Your task to perform on an android device: turn off location Image 0: 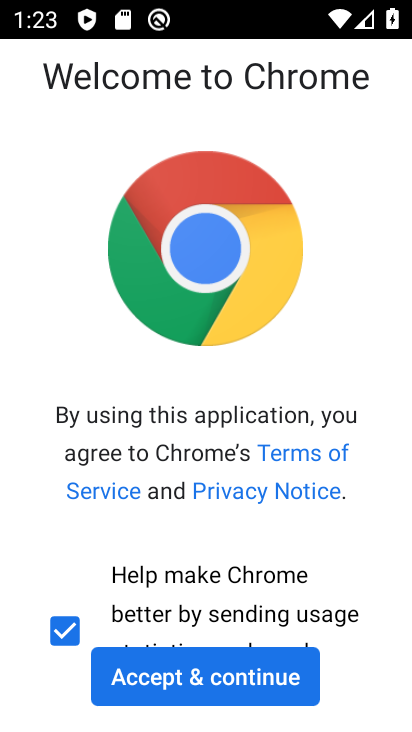
Step 0: press home button
Your task to perform on an android device: turn off location Image 1: 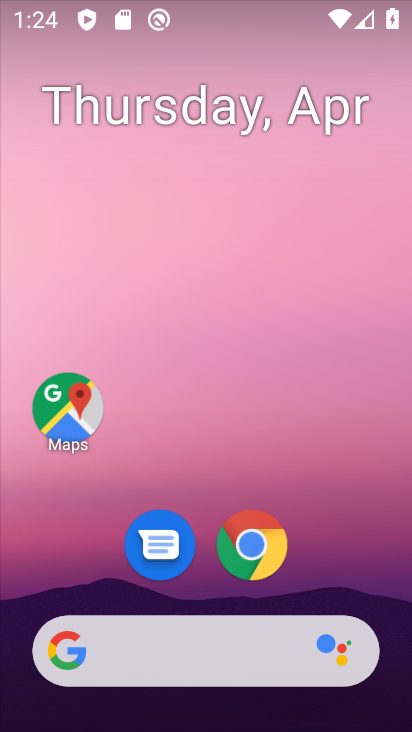
Step 1: drag from (342, 578) to (366, 1)
Your task to perform on an android device: turn off location Image 2: 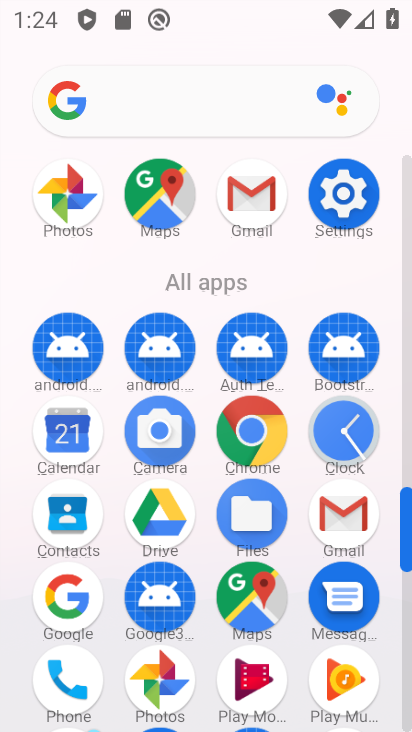
Step 2: click (340, 197)
Your task to perform on an android device: turn off location Image 3: 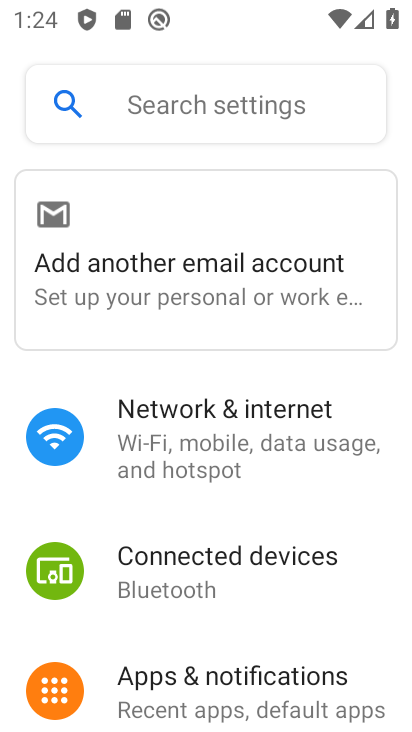
Step 3: drag from (348, 573) to (369, 62)
Your task to perform on an android device: turn off location Image 4: 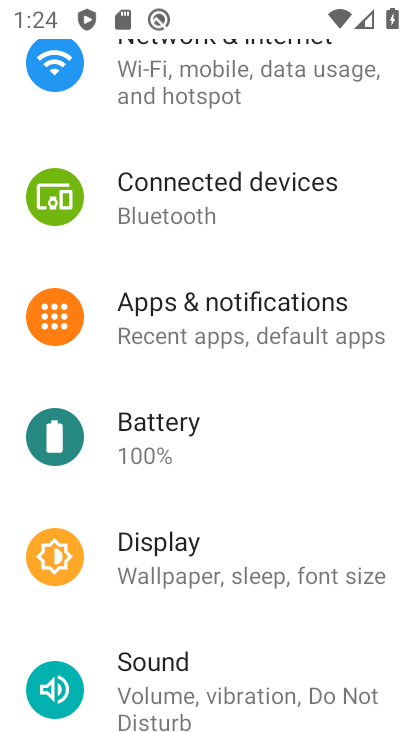
Step 4: drag from (275, 463) to (300, 109)
Your task to perform on an android device: turn off location Image 5: 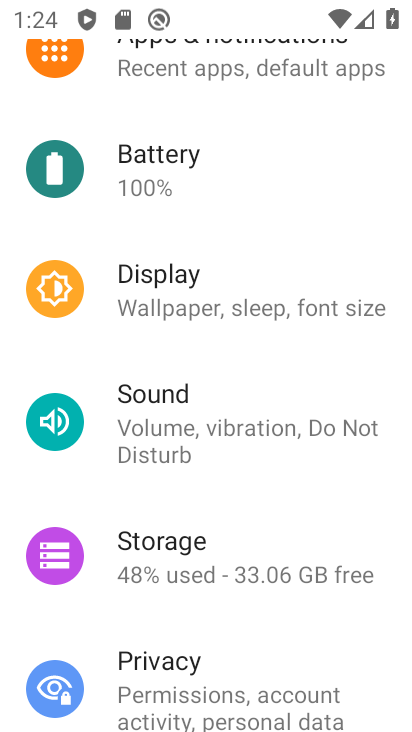
Step 5: drag from (268, 515) to (295, 191)
Your task to perform on an android device: turn off location Image 6: 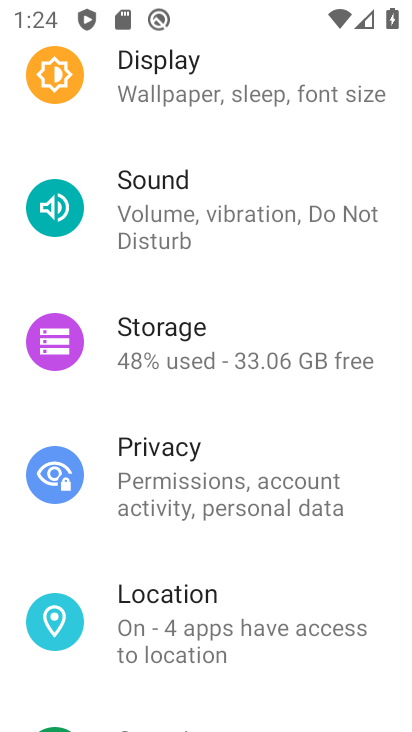
Step 6: click (158, 625)
Your task to perform on an android device: turn off location Image 7: 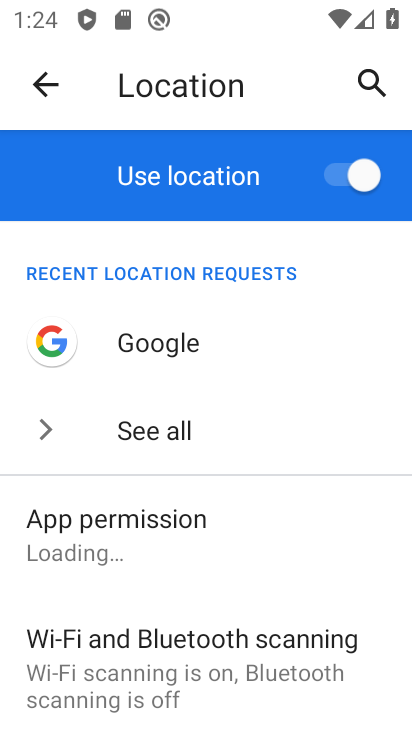
Step 7: click (352, 169)
Your task to perform on an android device: turn off location Image 8: 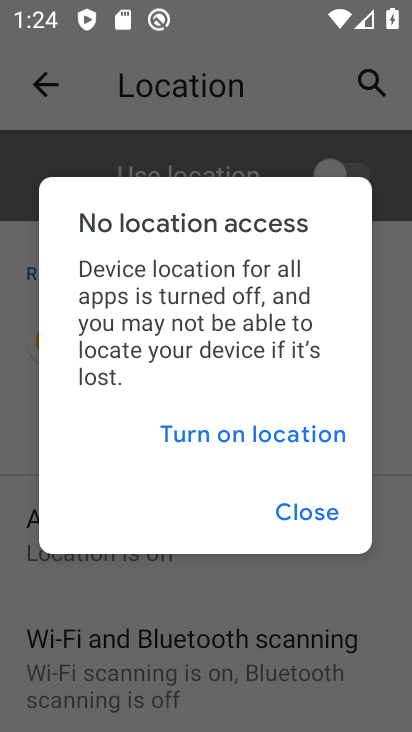
Step 8: click (286, 513)
Your task to perform on an android device: turn off location Image 9: 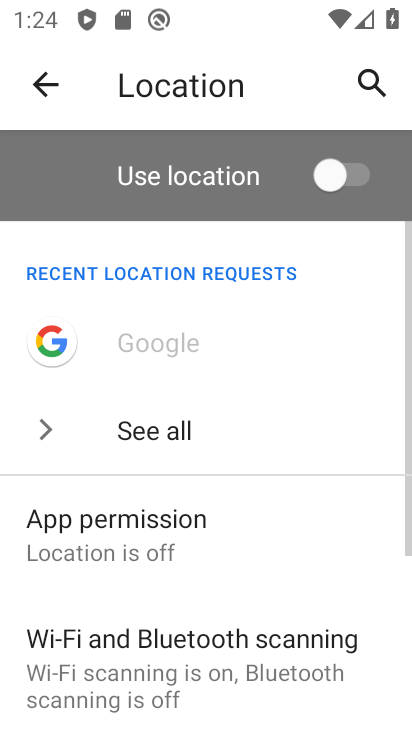
Step 9: task complete